Your task to perform on an android device: turn on showing notifications on the lock screen Image 0: 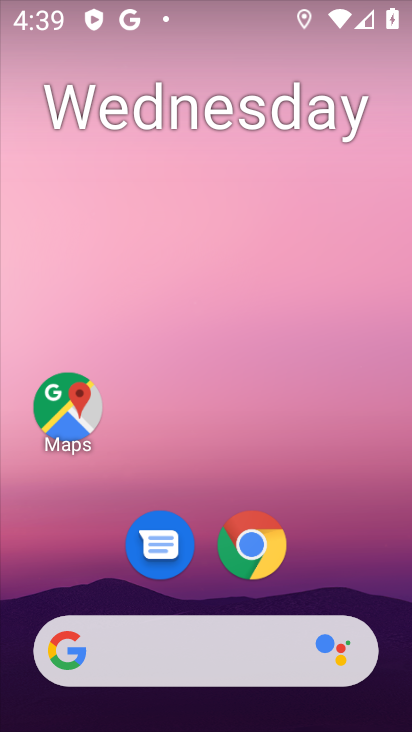
Step 0: drag from (159, 627) to (237, 29)
Your task to perform on an android device: turn on showing notifications on the lock screen Image 1: 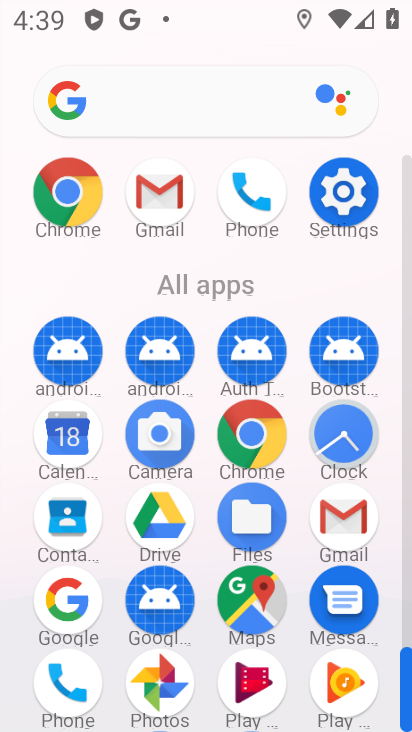
Step 1: click (326, 191)
Your task to perform on an android device: turn on showing notifications on the lock screen Image 2: 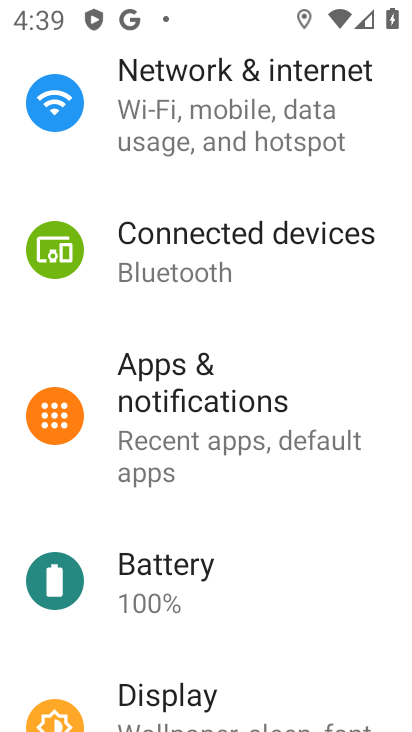
Step 2: click (254, 389)
Your task to perform on an android device: turn on showing notifications on the lock screen Image 3: 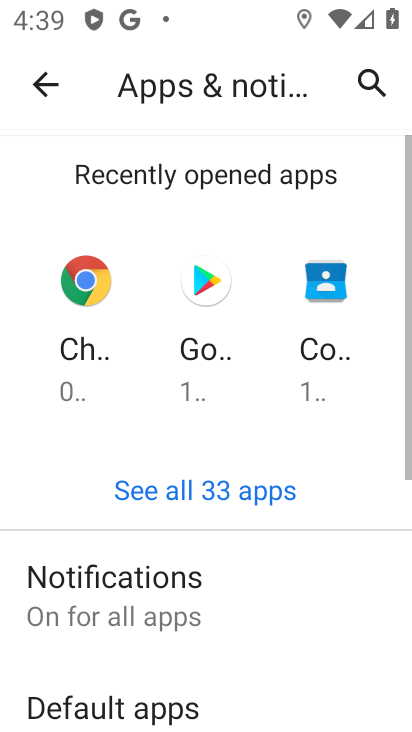
Step 3: click (156, 584)
Your task to perform on an android device: turn on showing notifications on the lock screen Image 4: 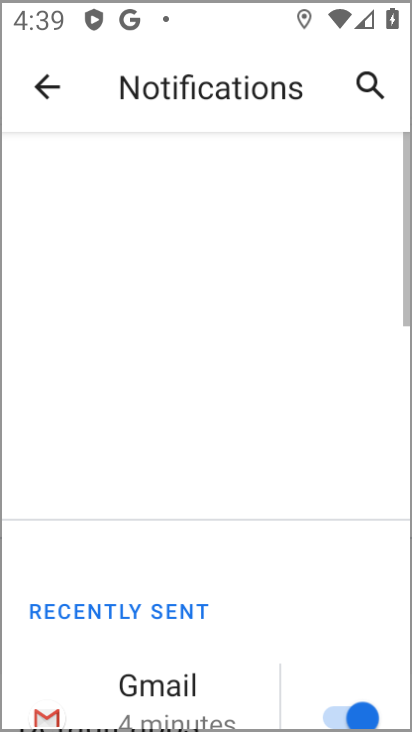
Step 4: drag from (156, 585) to (115, 236)
Your task to perform on an android device: turn on showing notifications on the lock screen Image 5: 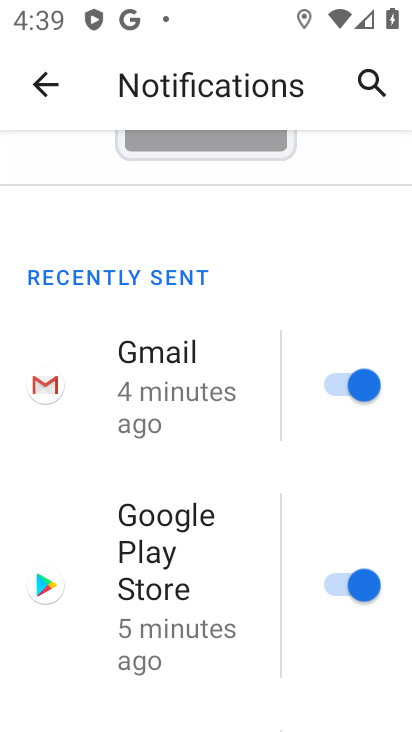
Step 5: drag from (155, 536) to (91, 94)
Your task to perform on an android device: turn on showing notifications on the lock screen Image 6: 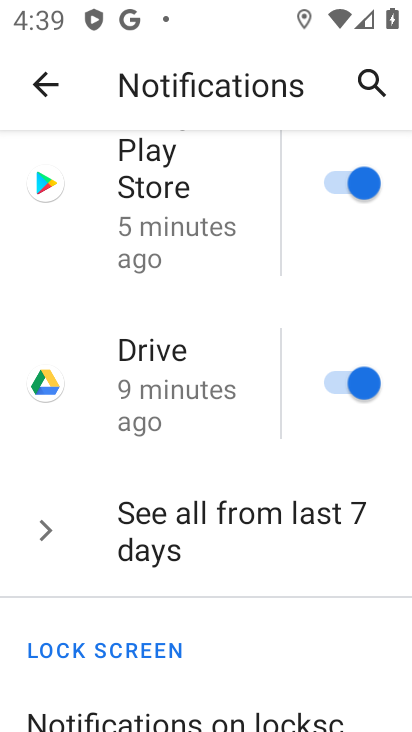
Step 6: click (188, 718)
Your task to perform on an android device: turn on showing notifications on the lock screen Image 7: 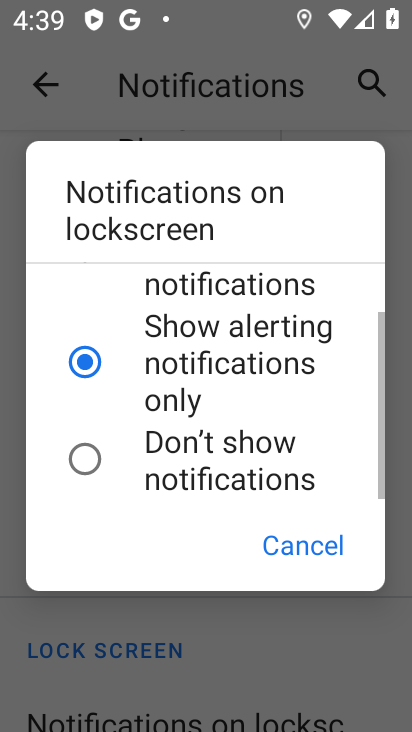
Step 7: drag from (136, 335) to (128, 622)
Your task to perform on an android device: turn on showing notifications on the lock screen Image 8: 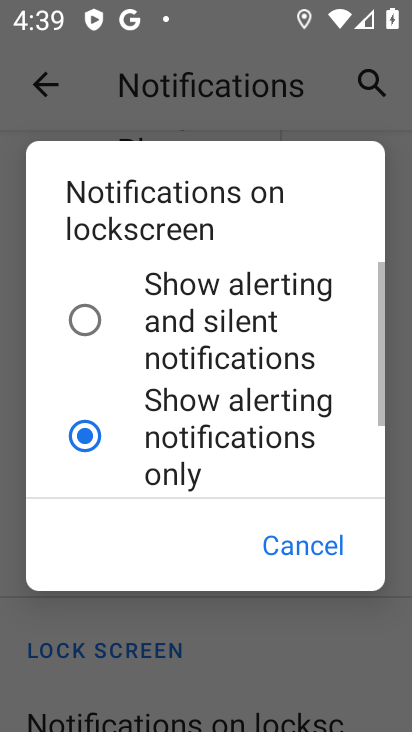
Step 8: click (121, 328)
Your task to perform on an android device: turn on showing notifications on the lock screen Image 9: 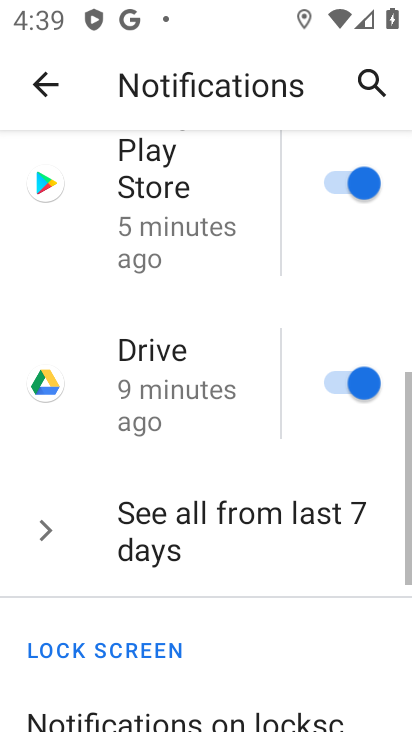
Step 9: task complete